Your task to perform on an android device: Open Youtube and go to "Your channel" Image 0: 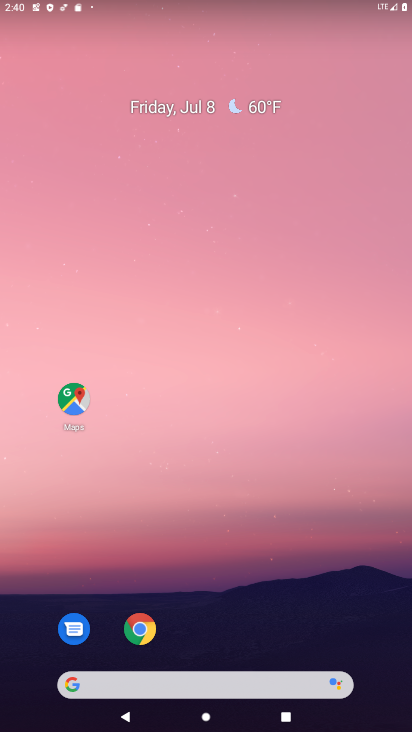
Step 0: drag from (192, 636) to (195, 214)
Your task to perform on an android device: Open Youtube and go to "Your channel" Image 1: 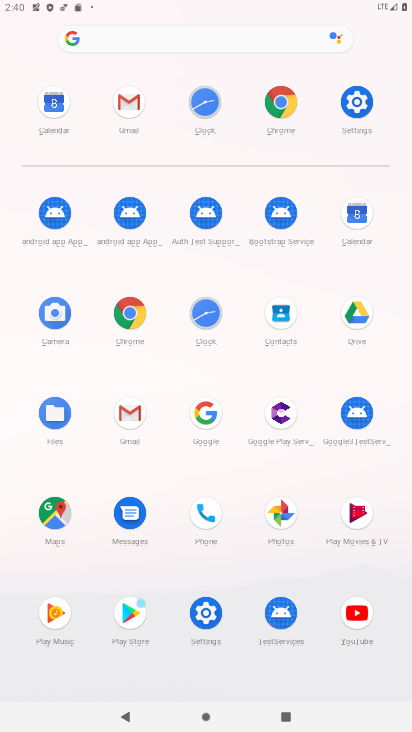
Step 1: click (360, 616)
Your task to perform on an android device: Open Youtube and go to "Your channel" Image 2: 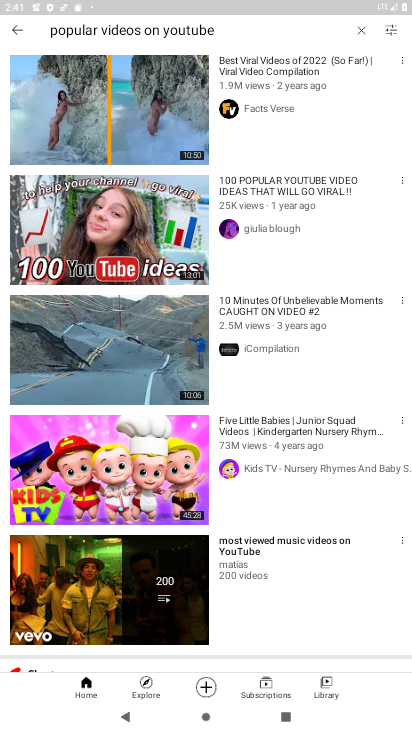
Step 2: click (18, 26)
Your task to perform on an android device: Open Youtube and go to "Your channel" Image 3: 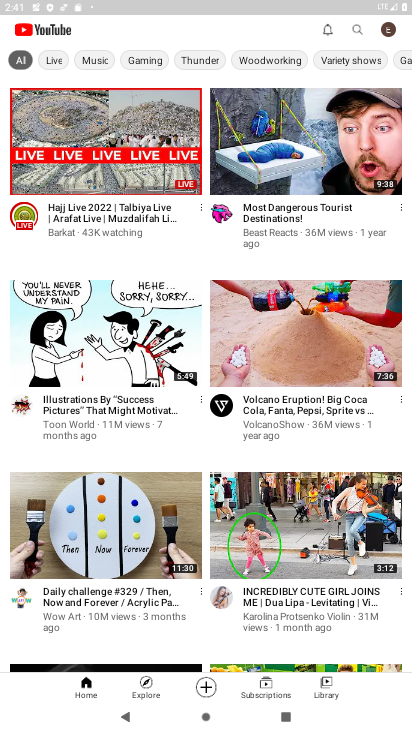
Step 3: click (388, 27)
Your task to perform on an android device: Open Youtube and go to "Your channel" Image 4: 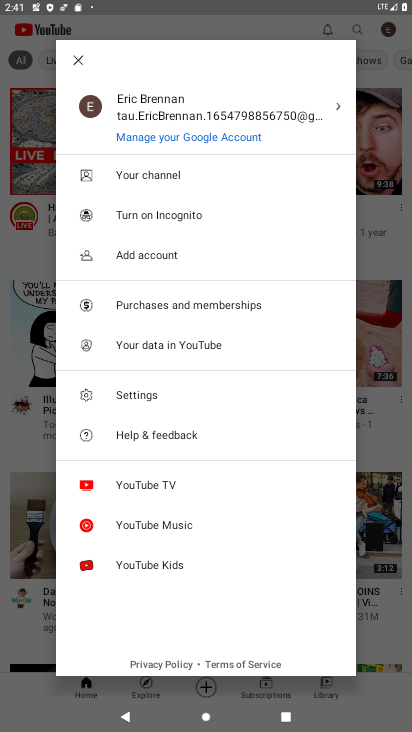
Step 4: click (197, 171)
Your task to perform on an android device: Open Youtube and go to "Your channel" Image 5: 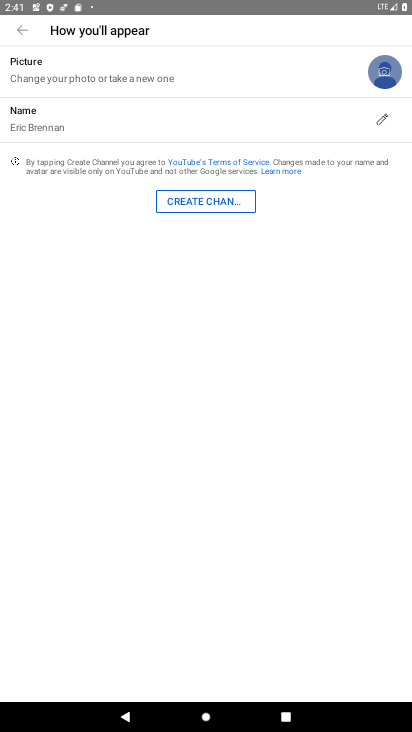
Step 5: click (20, 28)
Your task to perform on an android device: Open Youtube and go to "Your channel" Image 6: 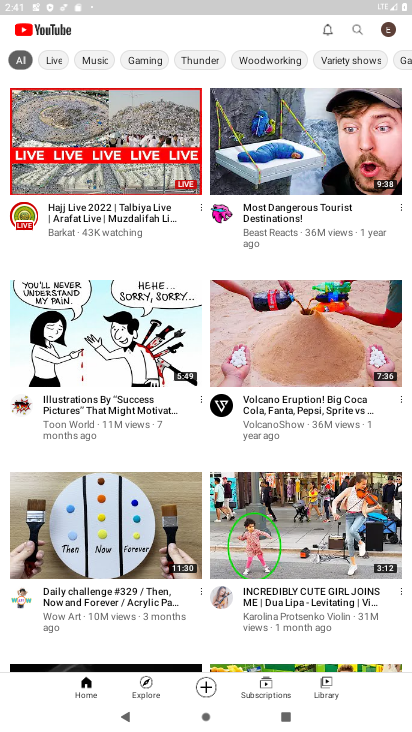
Step 6: click (394, 27)
Your task to perform on an android device: Open Youtube and go to "Your channel" Image 7: 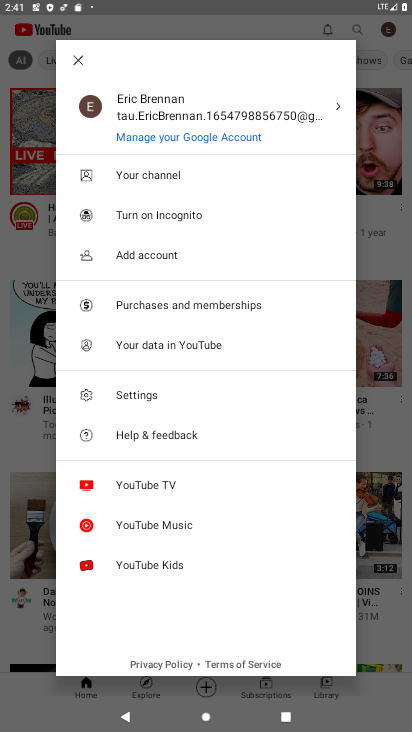
Step 7: click (150, 172)
Your task to perform on an android device: Open Youtube and go to "Your channel" Image 8: 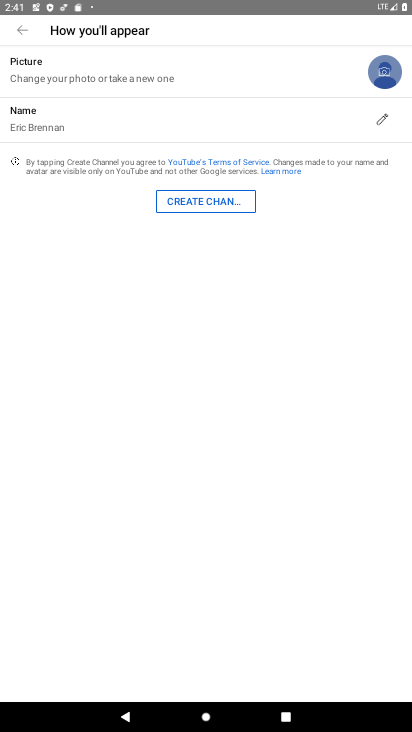
Step 8: task complete